Your task to perform on an android device: turn notification dots off Image 0: 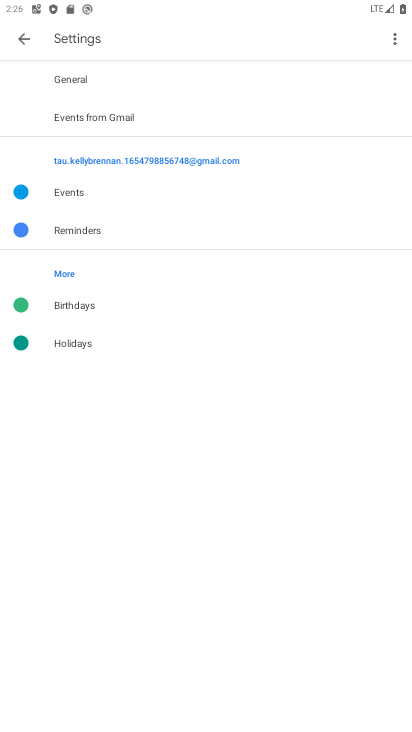
Step 0: press home button
Your task to perform on an android device: turn notification dots off Image 1: 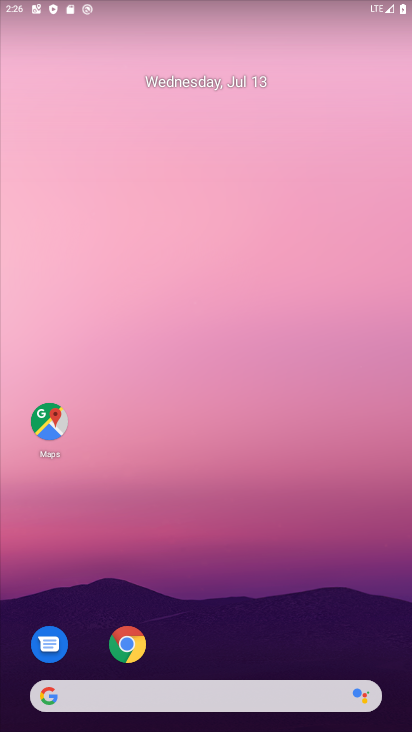
Step 1: drag from (346, 587) to (184, 128)
Your task to perform on an android device: turn notification dots off Image 2: 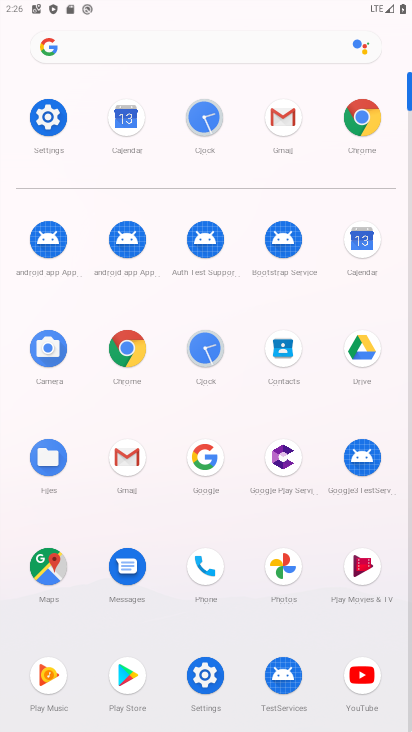
Step 2: click (44, 127)
Your task to perform on an android device: turn notification dots off Image 3: 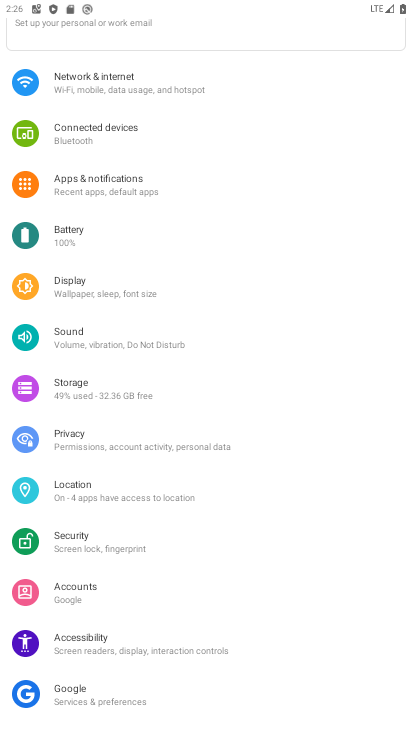
Step 3: click (132, 181)
Your task to perform on an android device: turn notification dots off Image 4: 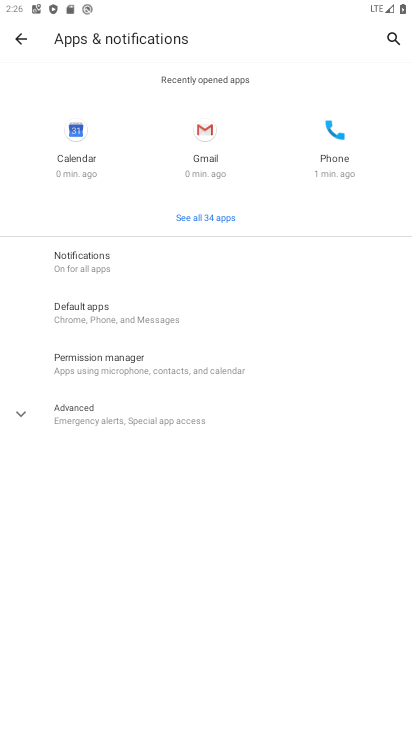
Step 4: click (105, 270)
Your task to perform on an android device: turn notification dots off Image 5: 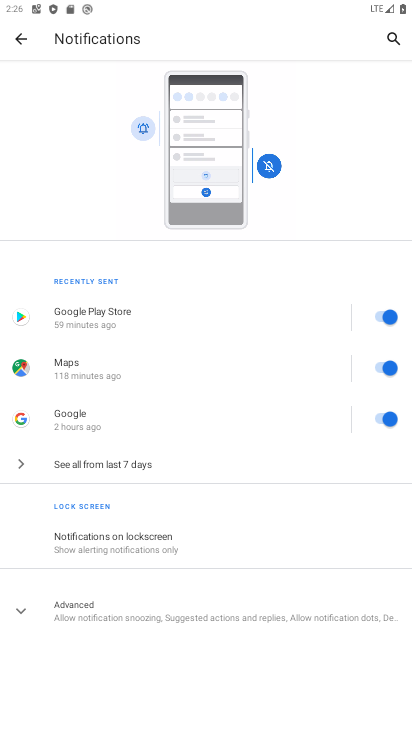
Step 5: click (168, 610)
Your task to perform on an android device: turn notification dots off Image 6: 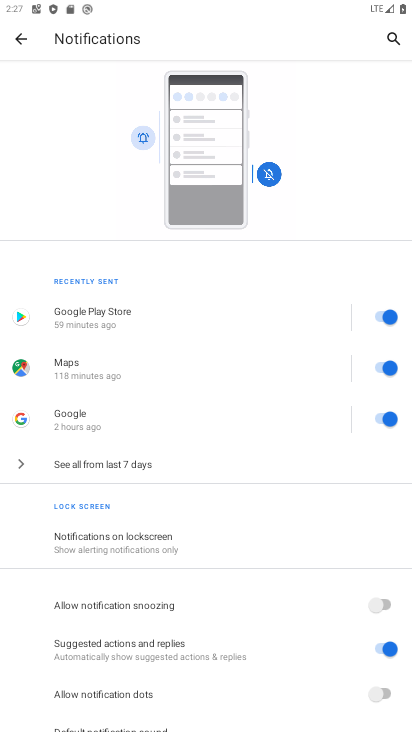
Step 6: task complete